Your task to perform on an android device: Open the phone app and click the voicemail tab. Image 0: 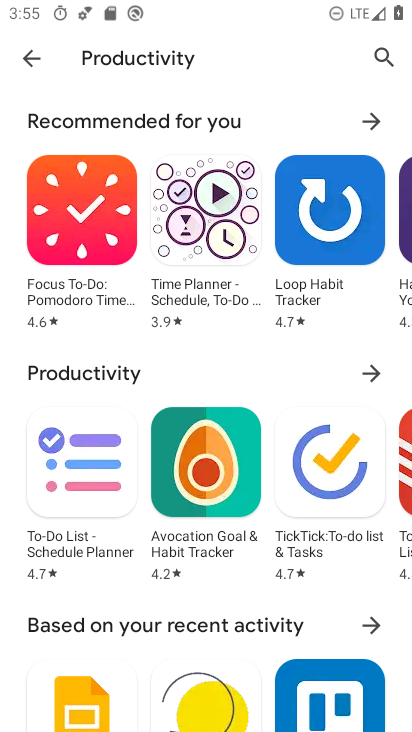
Step 0: press home button
Your task to perform on an android device: Open the phone app and click the voicemail tab. Image 1: 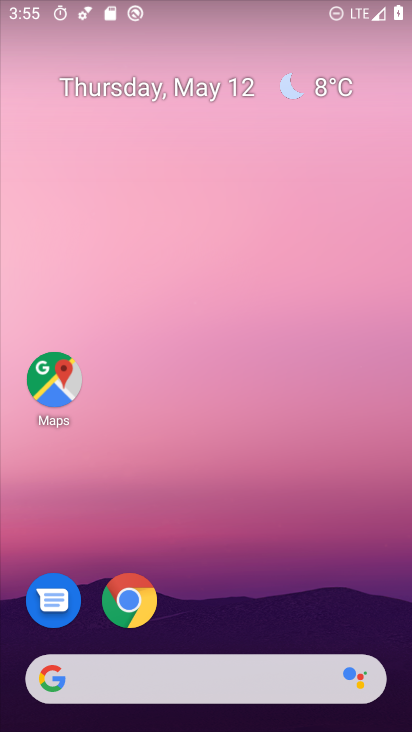
Step 1: drag from (227, 727) to (227, 184)
Your task to perform on an android device: Open the phone app and click the voicemail tab. Image 2: 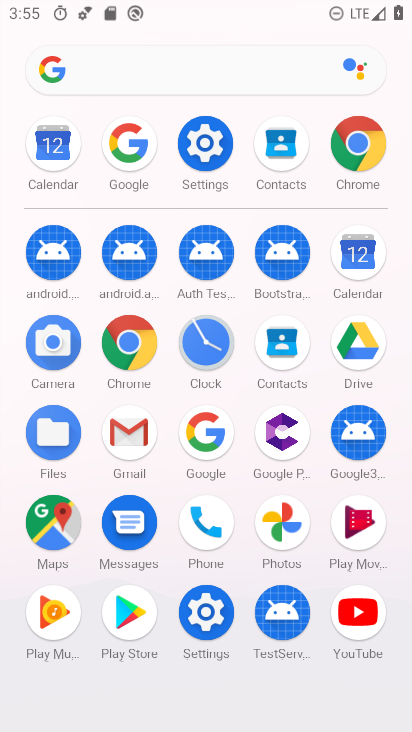
Step 2: click (202, 527)
Your task to perform on an android device: Open the phone app and click the voicemail tab. Image 3: 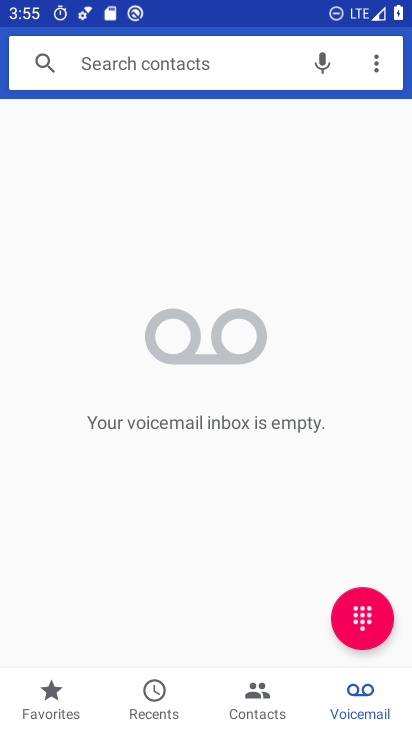
Step 3: task complete